Your task to perform on an android device: Open Youtube and go to "Your channel" Image 0: 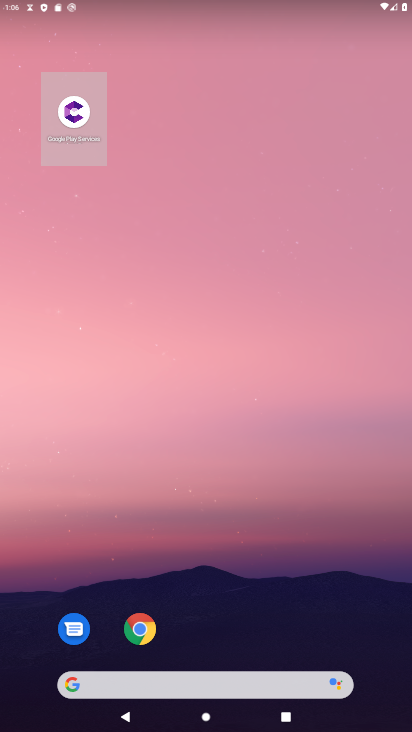
Step 0: drag from (217, 628) to (221, 1)
Your task to perform on an android device: Open Youtube and go to "Your channel" Image 1: 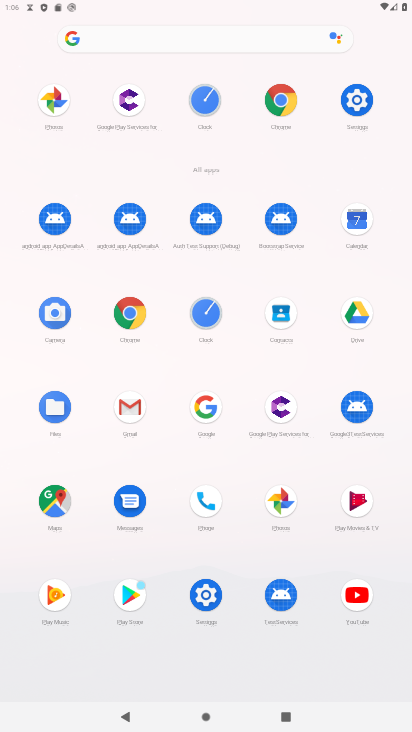
Step 1: click (371, 603)
Your task to perform on an android device: Open Youtube and go to "Your channel" Image 2: 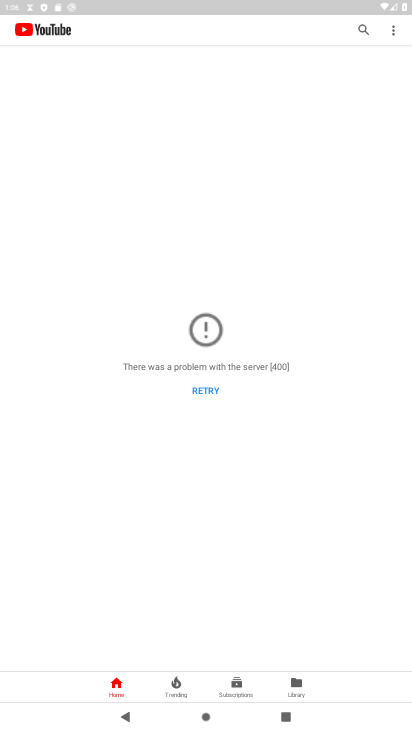
Step 2: click (205, 392)
Your task to perform on an android device: Open Youtube and go to "Your channel" Image 3: 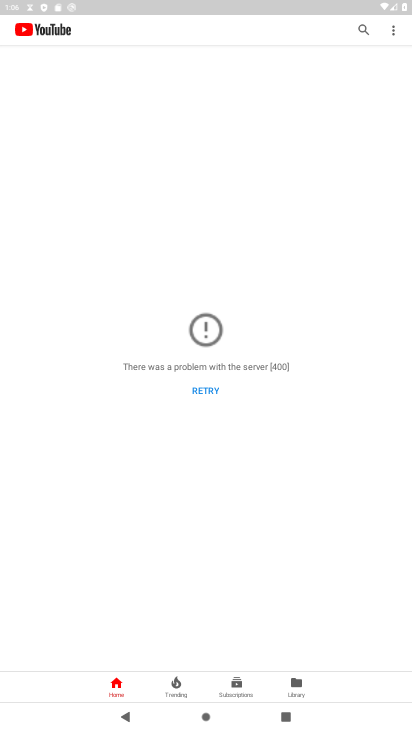
Step 3: click (206, 391)
Your task to perform on an android device: Open Youtube and go to "Your channel" Image 4: 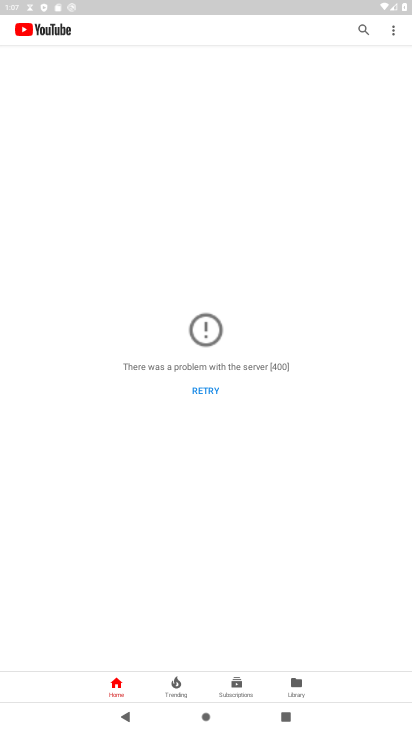
Step 4: click (206, 386)
Your task to perform on an android device: Open Youtube and go to "Your channel" Image 5: 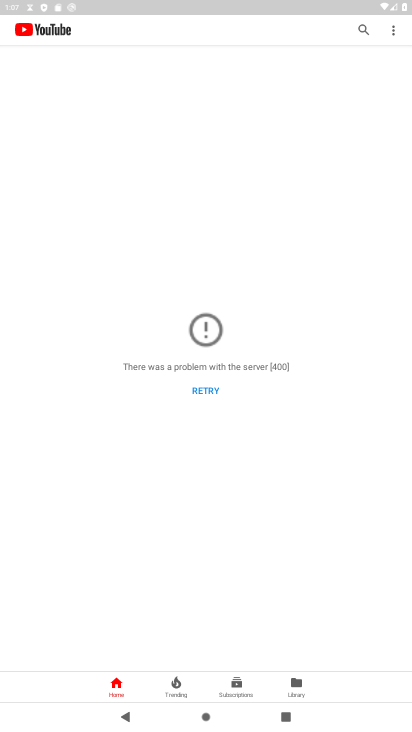
Step 5: click (206, 386)
Your task to perform on an android device: Open Youtube and go to "Your channel" Image 6: 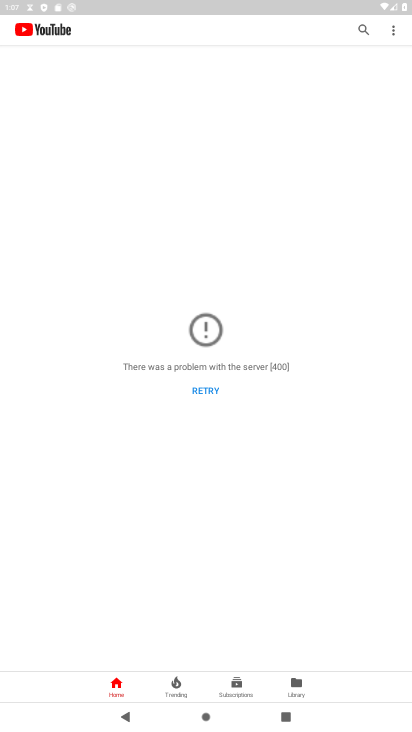
Step 6: click (207, 385)
Your task to perform on an android device: Open Youtube and go to "Your channel" Image 7: 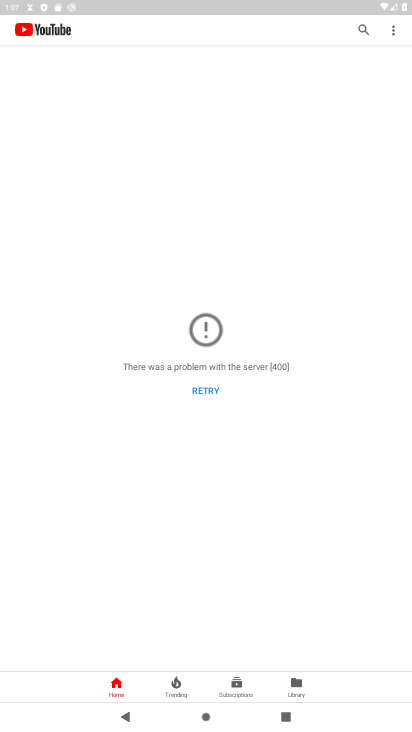
Step 7: click (208, 387)
Your task to perform on an android device: Open Youtube and go to "Your channel" Image 8: 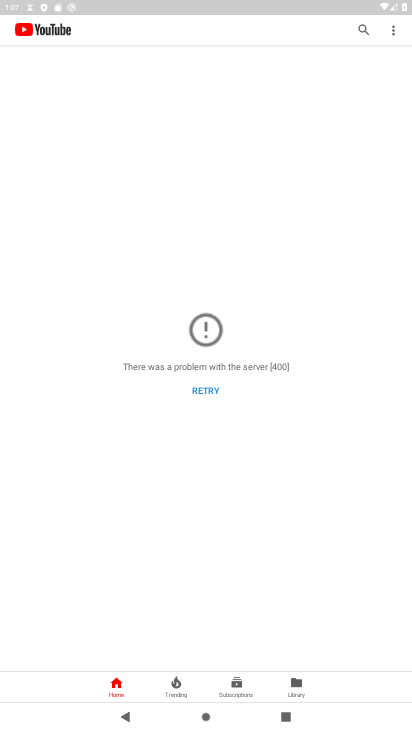
Step 8: click (203, 389)
Your task to perform on an android device: Open Youtube and go to "Your channel" Image 9: 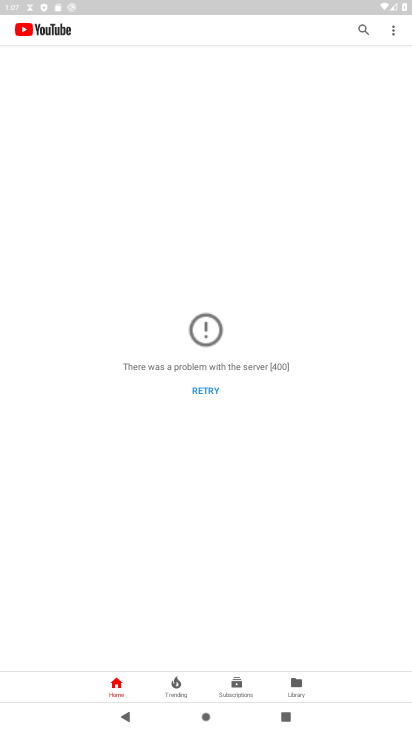
Step 9: click (204, 390)
Your task to perform on an android device: Open Youtube and go to "Your channel" Image 10: 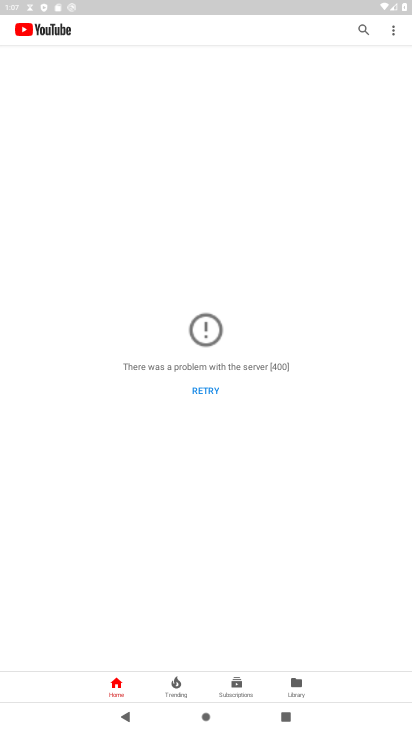
Step 10: click (204, 390)
Your task to perform on an android device: Open Youtube and go to "Your channel" Image 11: 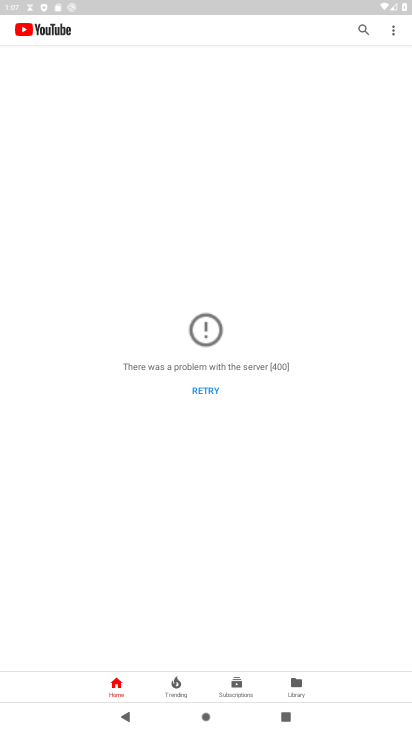
Step 11: task complete